Your task to perform on an android device: Open internet settings Image 0: 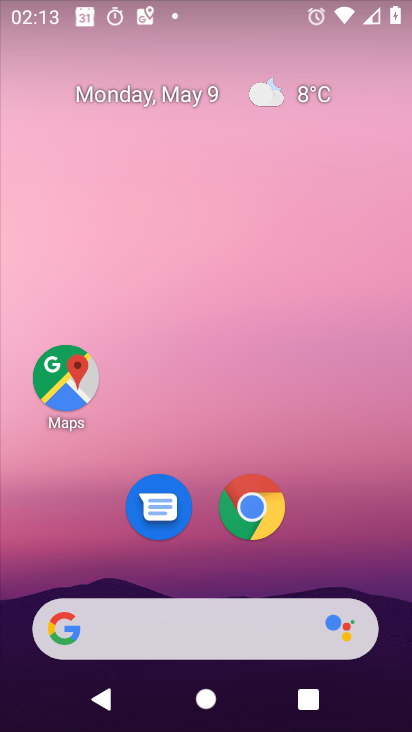
Step 0: drag from (212, 722) to (209, 79)
Your task to perform on an android device: Open internet settings Image 1: 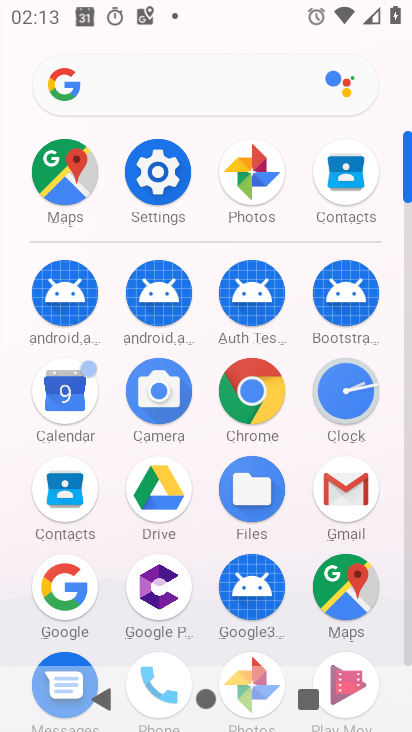
Step 1: click (156, 164)
Your task to perform on an android device: Open internet settings Image 2: 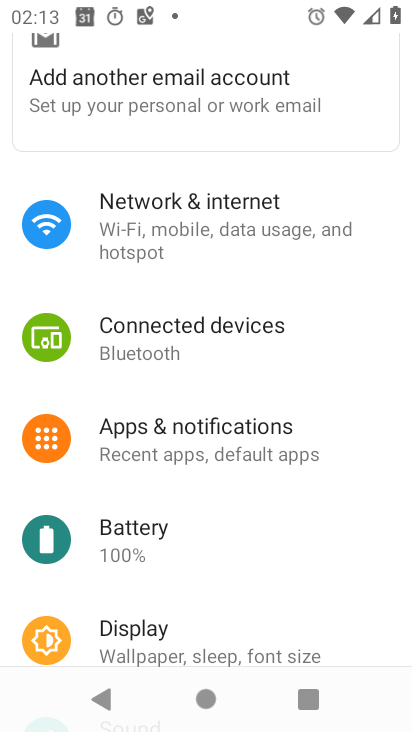
Step 2: click (159, 213)
Your task to perform on an android device: Open internet settings Image 3: 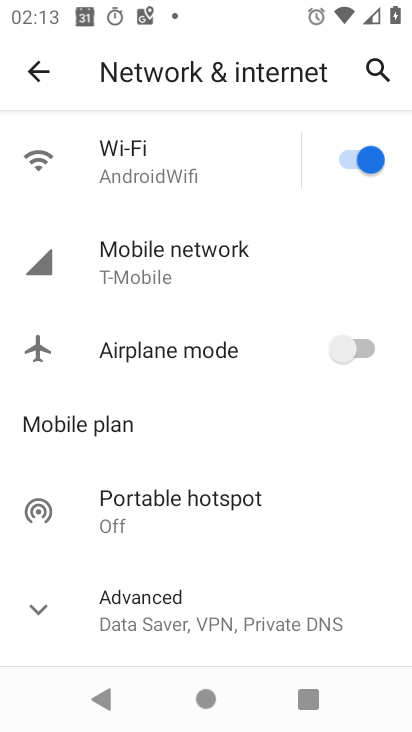
Step 3: click (157, 250)
Your task to perform on an android device: Open internet settings Image 4: 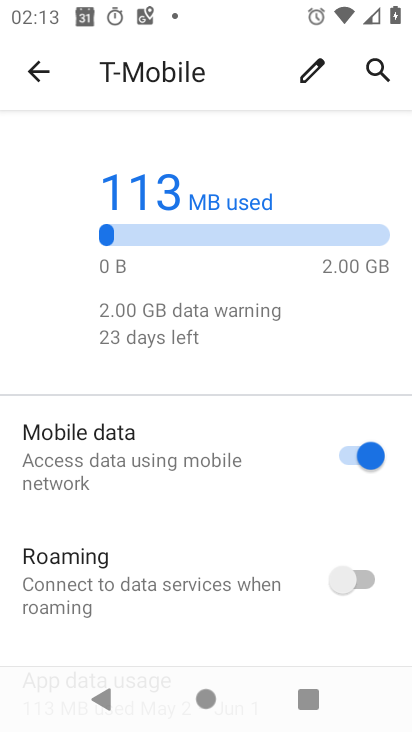
Step 4: task complete